Your task to perform on an android device: search for starred emails in the gmail app Image 0: 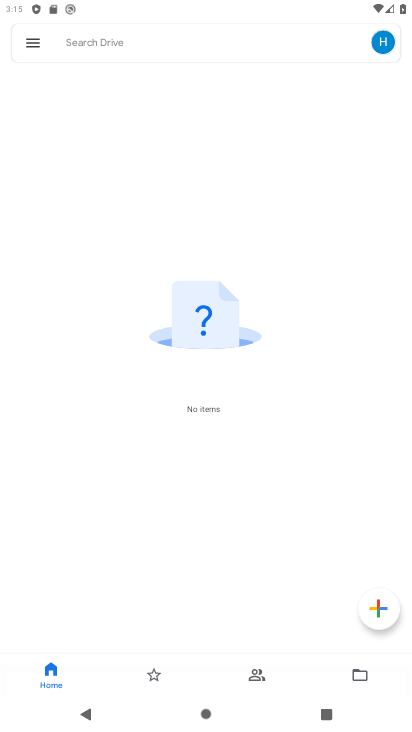
Step 0: press home button
Your task to perform on an android device: search for starred emails in the gmail app Image 1: 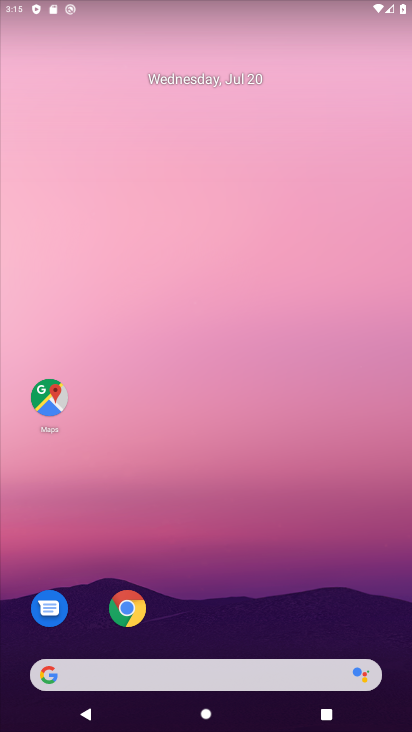
Step 1: drag from (247, 619) to (197, 144)
Your task to perform on an android device: search for starred emails in the gmail app Image 2: 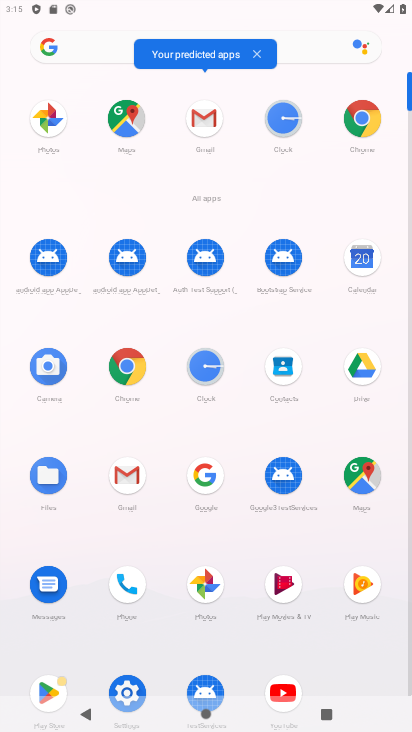
Step 2: click (199, 132)
Your task to perform on an android device: search for starred emails in the gmail app Image 3: 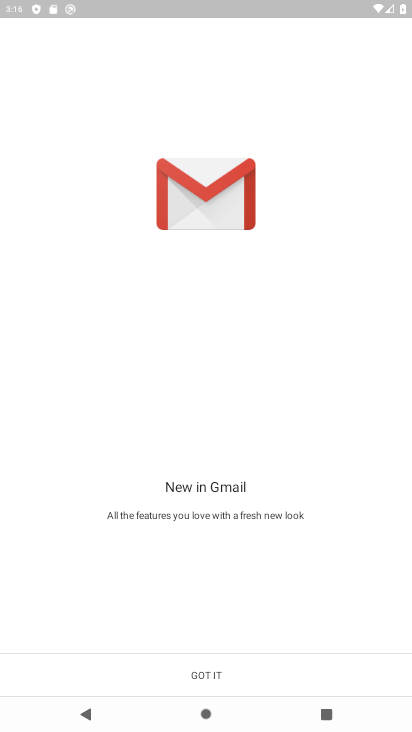
Step 3: click (180, 701)
Your task to perform on an android device: search for starred emails in the gmail app Image 4: 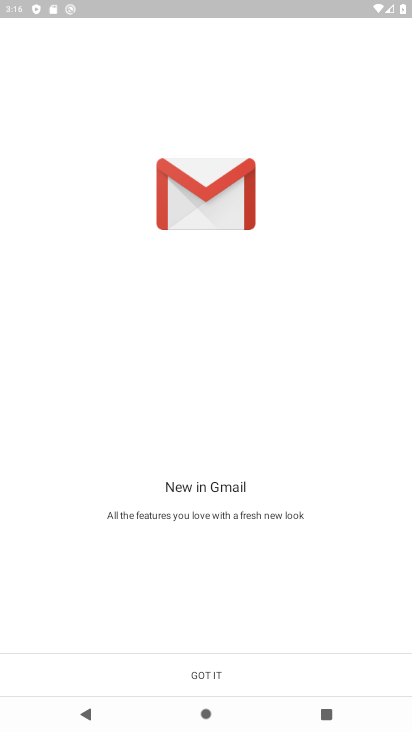
Step 4: click (182, 685)
Your task to perform on an android device: search for starred emails in the gmail app Image 5: 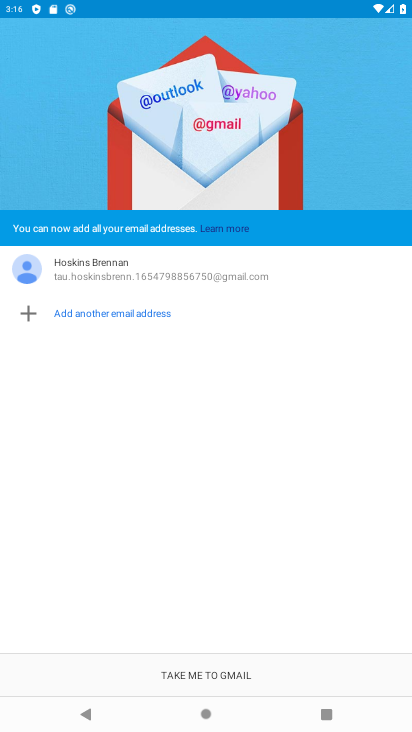
Step 5: click (182, 685)
Your task to perform on an android device: search for starred emails in the gmail app Image 6: 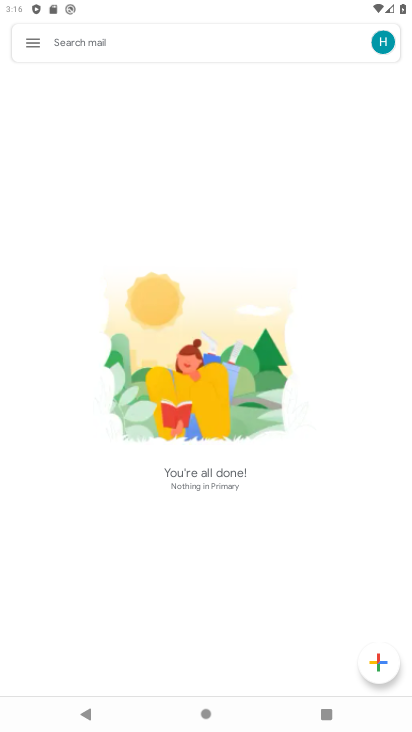
Step 6: click (26, 25)
Your task to perform on an android device: search for starred emails in the gmail app Image 7: 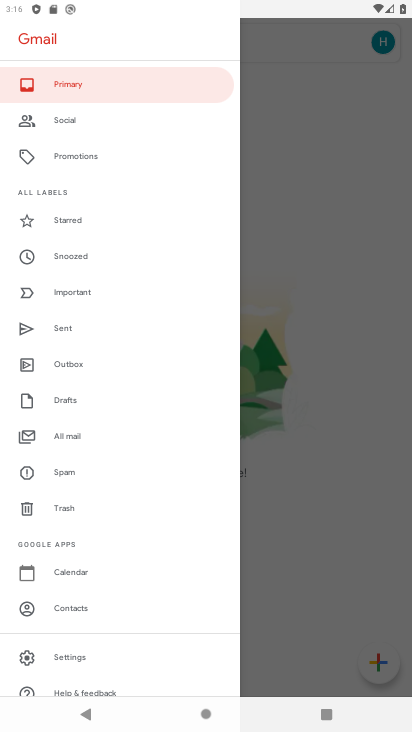
Step 7: click (50, 223)
Your task to perform on an android device: search for starred emails in the gmail app Image 8: 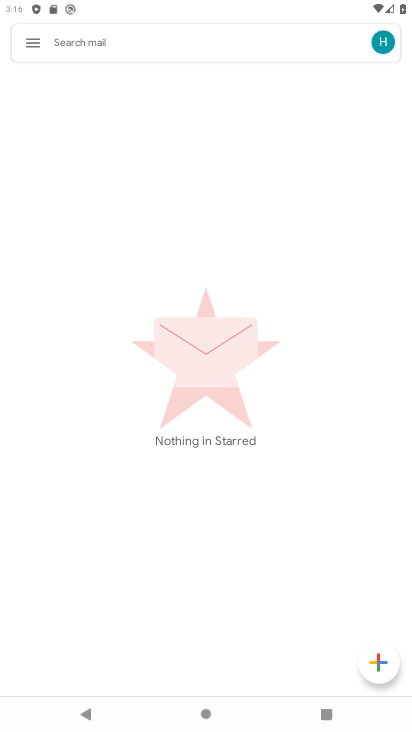
Step 8: task complete